Your task to perform on an android device: turn on wifi Image 0: 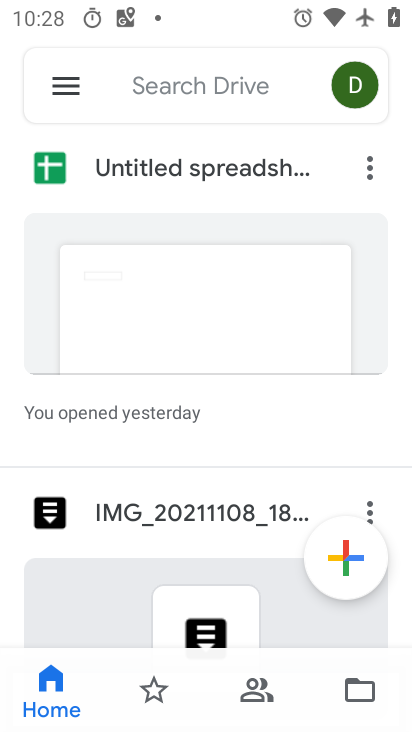
Step 0: press home button
Your task to perform on an android device: turn on wifi Image 1: 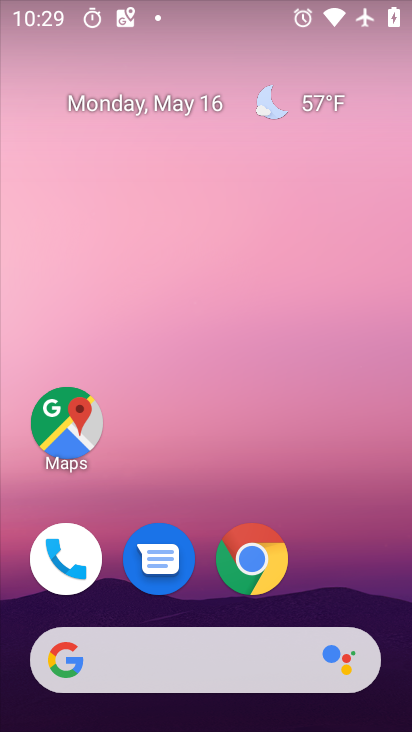
Step 1: drag from (347, 591) to (326, 84)
Your task to perform on an android device: turn on wifi Image 2: 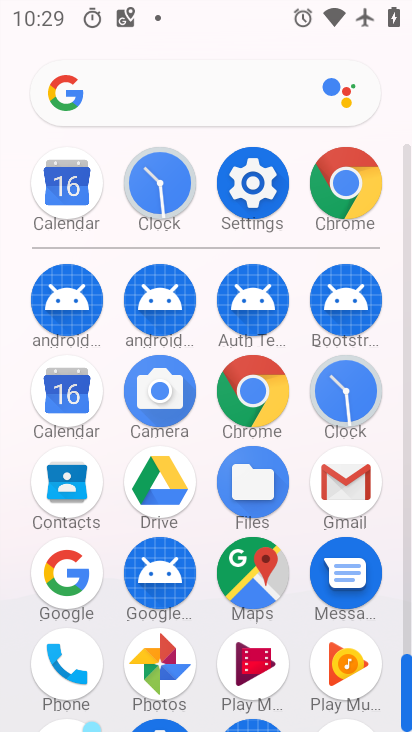
Step 2: click (245, 172)
Your task to perform on an android device: turn on wifi Image 3: 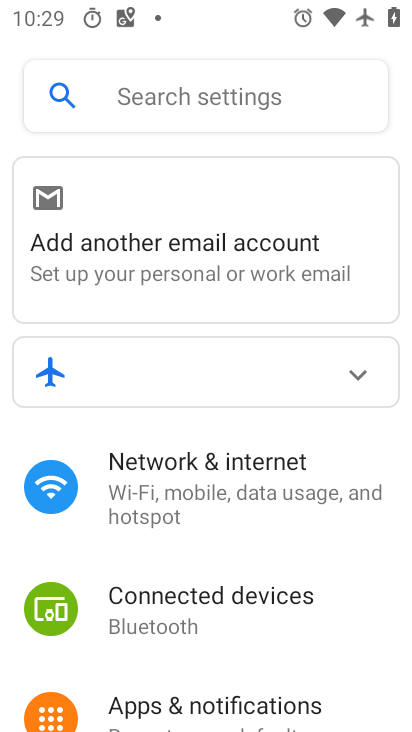
Step 3: click (212, 489)
Your task to perform on an android device: turn on wifi Image 4: 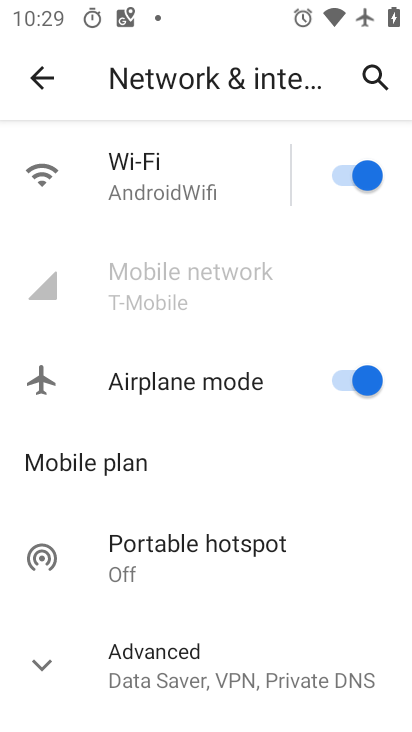
Step 4: click (151, 201)
Your task to perform on an android device: turn on wifi Image 5: 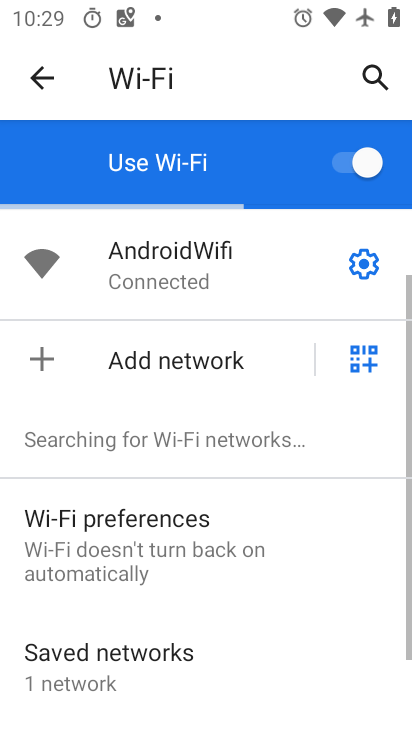
Step 5: task complete